Your task to perform on an android device: add a label to a message in the gmail app Image 0: 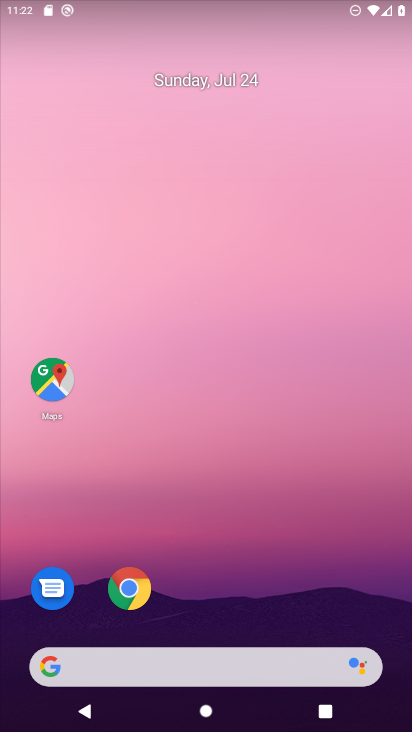
Step 0: drag from (247, 623) to (255, 0)
Your task to perform on an android device: add a label to a message in the gmail app Image 1: 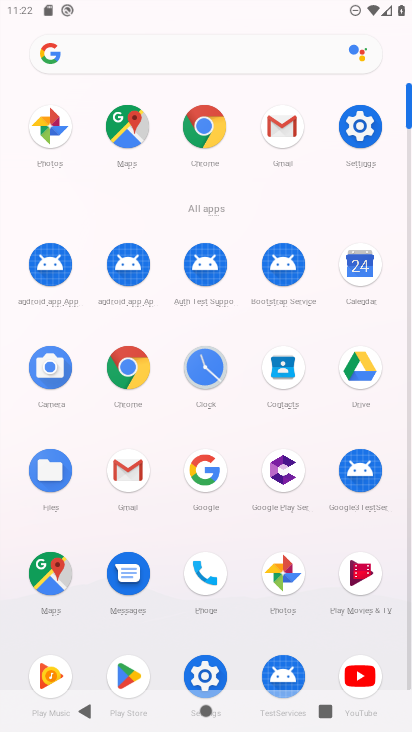
Step 1: click (278, 123)
Your task to perform on an android device: add a label to a message in the gmail app Image 2: 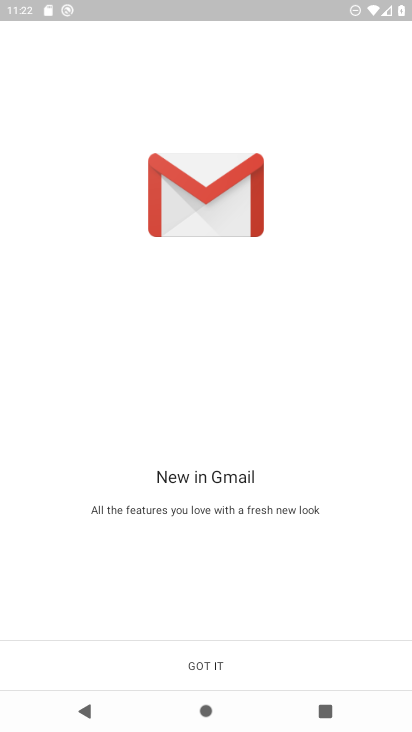
Step 2: click (215, 677)
Your task to perform on an android device: add a label to a message in the gmail app Image 3: 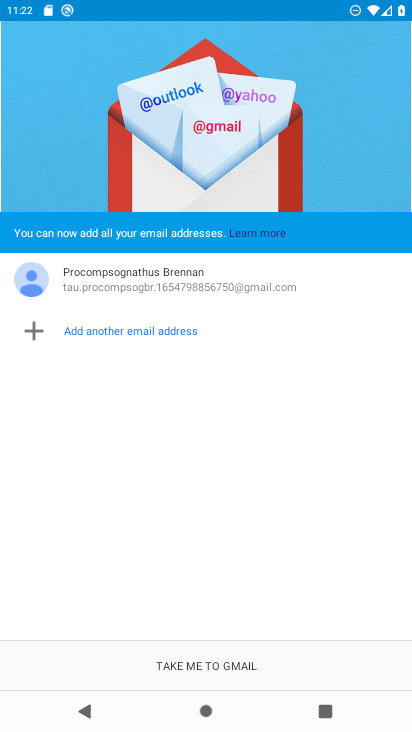
Step 3: click (239, 674)
Your task to perform on an android device: add a label to a message in the gmail app Image 4: 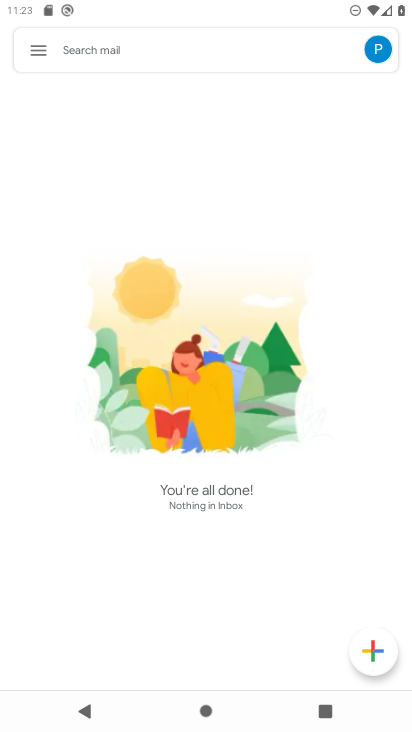
Step 4: task complete